Your task to perform on an android device: toggle notification dots Image 0: 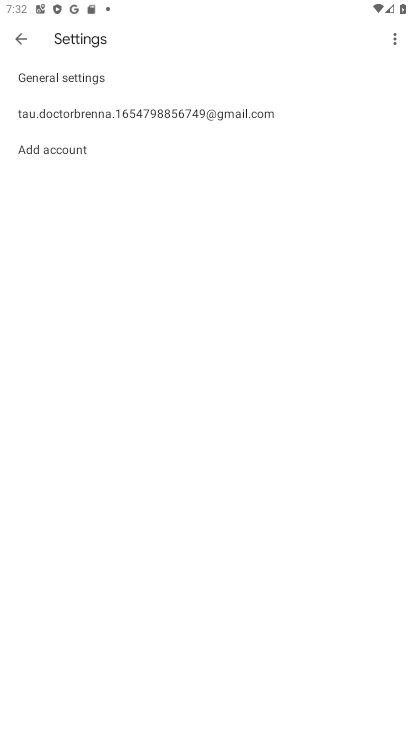
Step 0: press home button
Your task to perform on an android device: toggle notification dots Image 1: 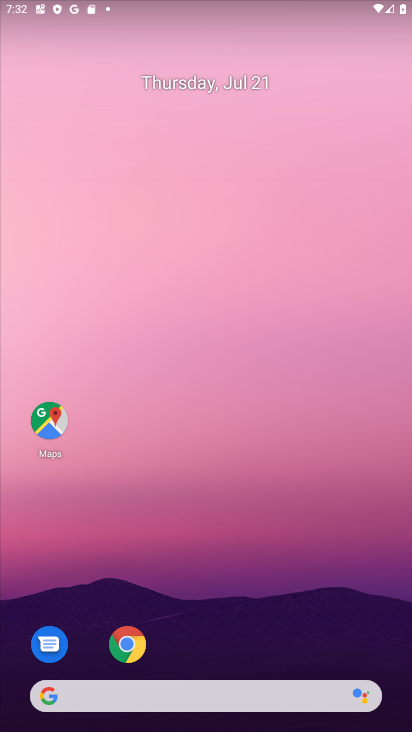
Step 1: drag from (213, 514) to (276, 172)
Your task to perform on an android device: toggle notification dots Image 2: 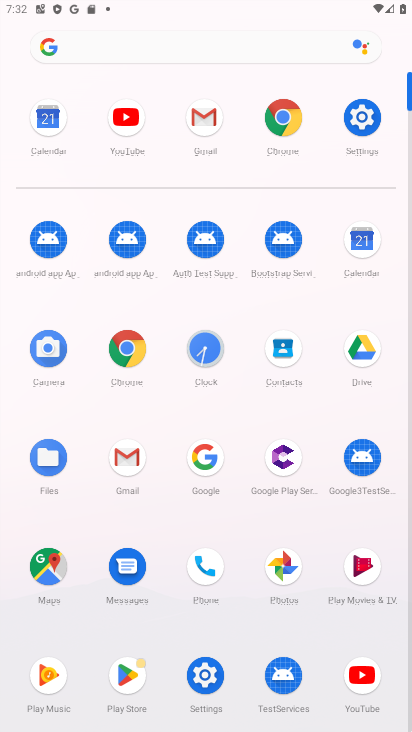
Step 2: click (212, 675)
Your task to perform on an android device: toggle notification dots Image 3: 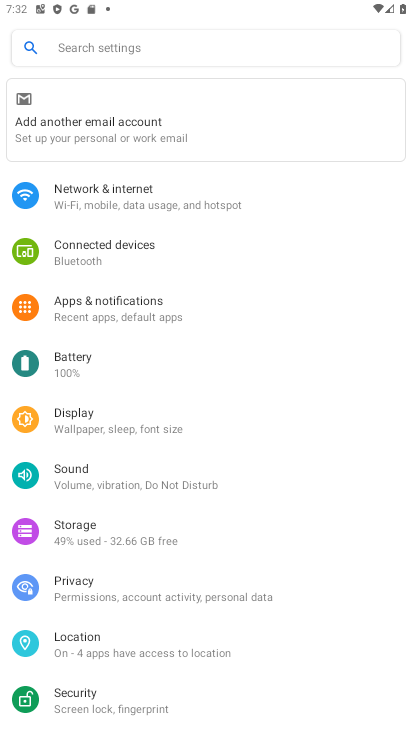
Step 3: task complete